Your task to perform on an android device: Turn on the flashlight Image 0: 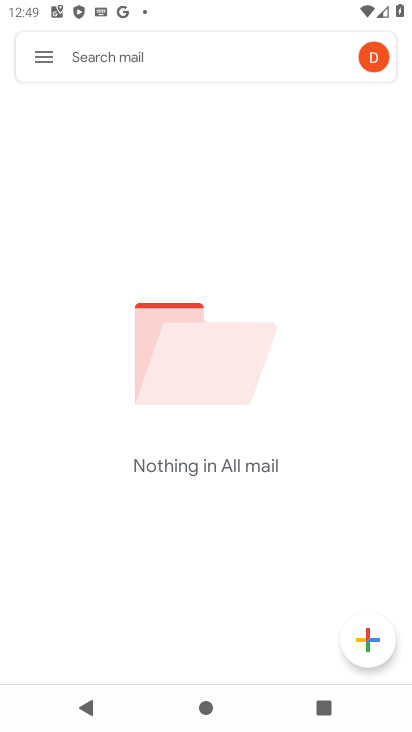
Step 0: press home button
Your task to perform on an android device: Turn on the flashlight Image 1: 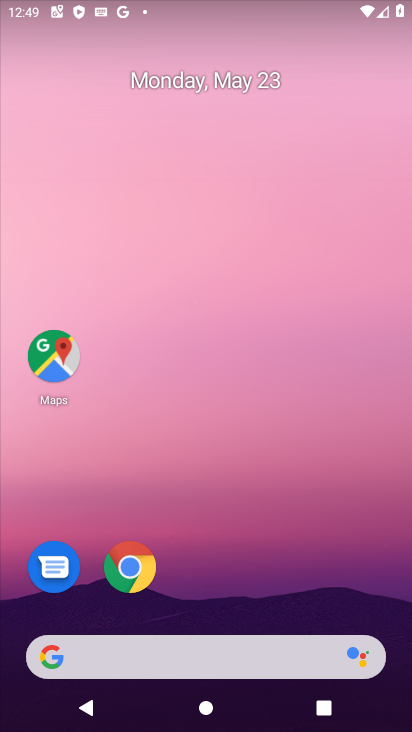
Step 1: drag from (218, 602) to (163, 133)
Your task to perform on an android device: Turn on the flashlight Image 2: 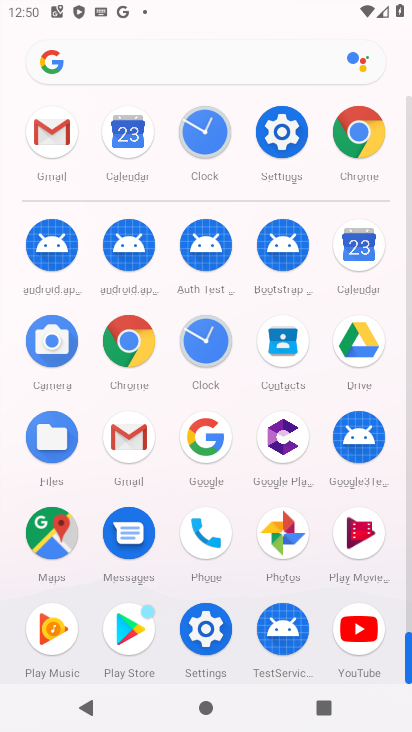
Step 2: drag from (246, 12) to (259, 659)
Your task to perform on an android device: Turn on the flashlight Image 3: 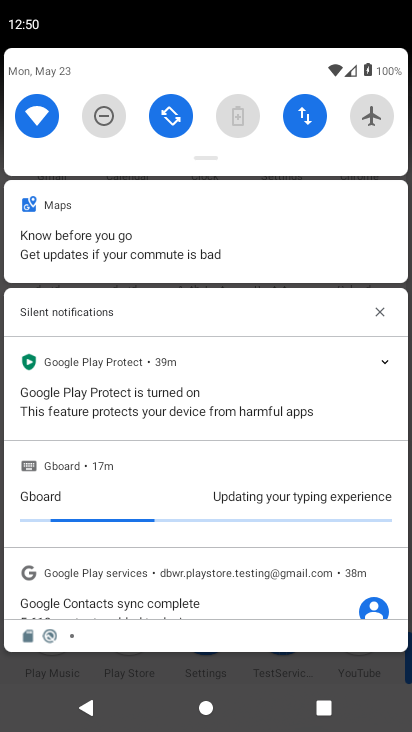
Step 3: drag from (203, 144) to (221, 613)
Your task to perform on an android device: Turn on the flashlight Image 4: 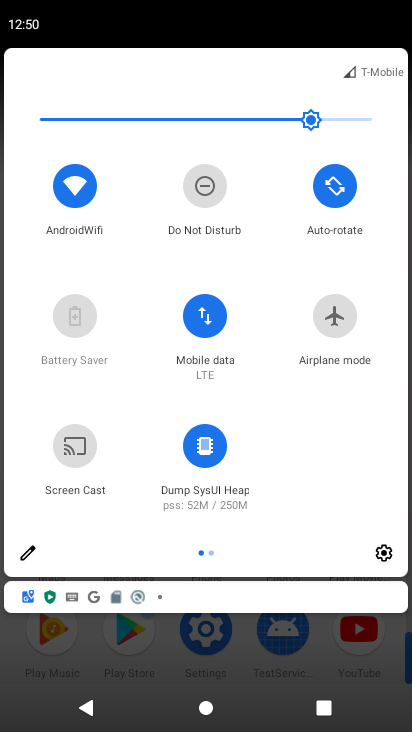
Step 4: click (21, 561)
Your task to perform on an android device: Turn on the flashlight Image 5: 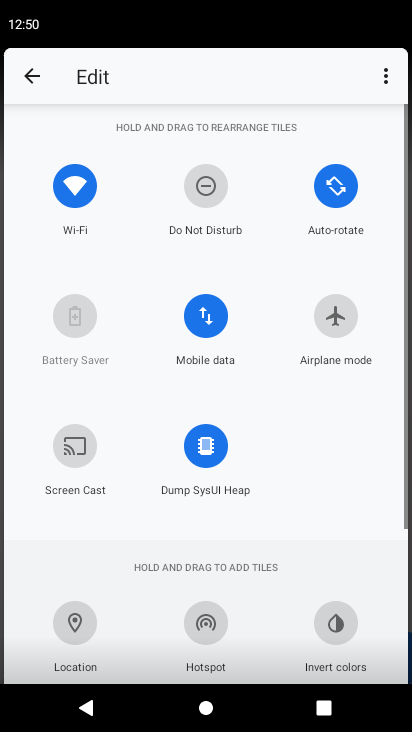
Step 5: task complete